Your task to perform on an android device: Go to accessibility settings Image 0: 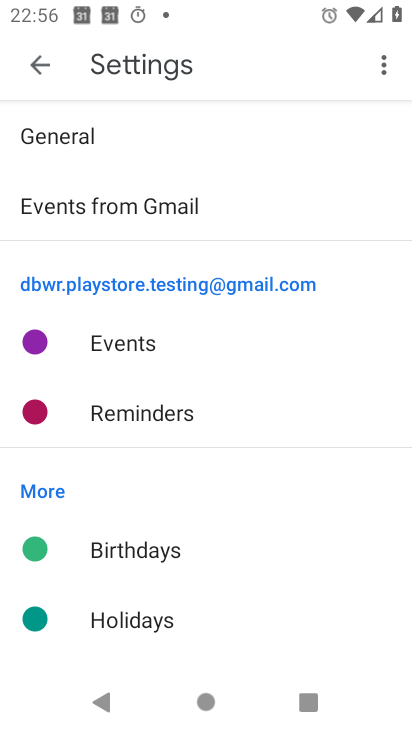
Step 0: press home button
Your task to perform on an android device: Go to accessibility settings Image 1: 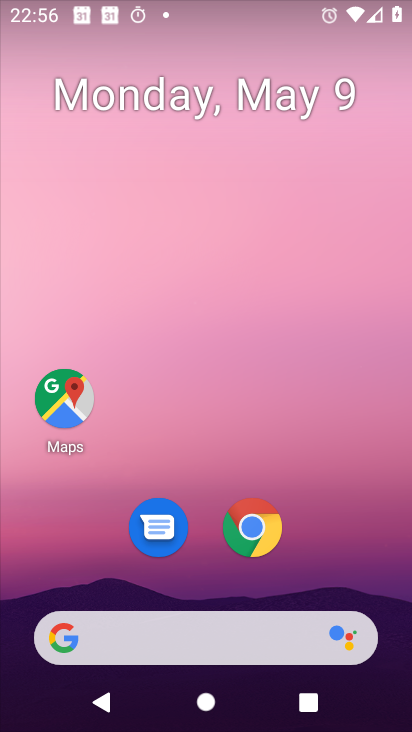
Step 1: drag from (205, 568) to (203, 80)
Your task to perform on an android device: Go to accessibility settings Image 2: 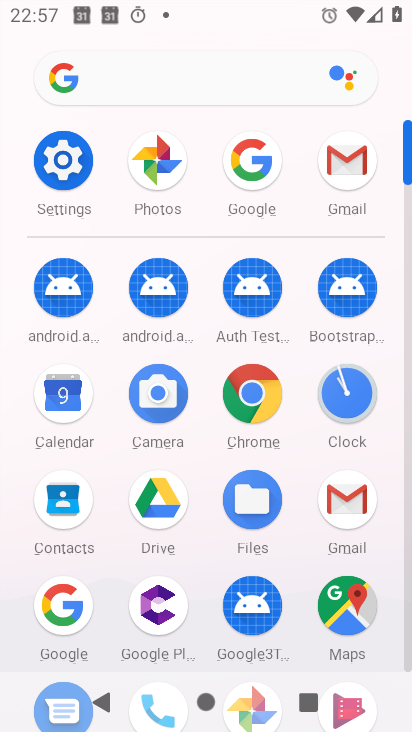
Step 2: click (58, 157)
Your task to perform on an android device: Go to accessibility settings Image 3: 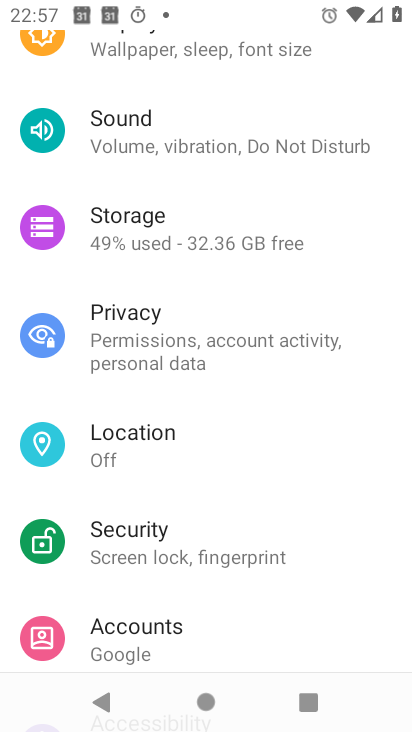
Step 3: drag from (206, 510) to (207, 69)
Your task to perform on an android device: Go to accessibility settings Image 4: 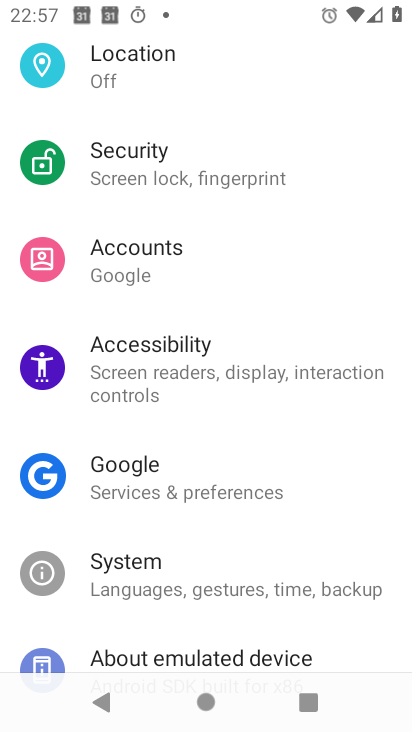
Step 4: click (162, 370)
Your task to perform on an android device: Go to accessibility settings Image 5: 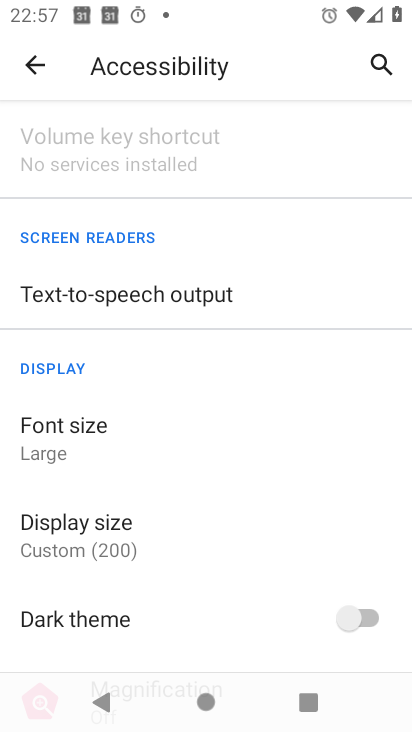
Step 5: task complete